Your task to perform on an android device: remove spam from my inbox in the gmail app Image 0: 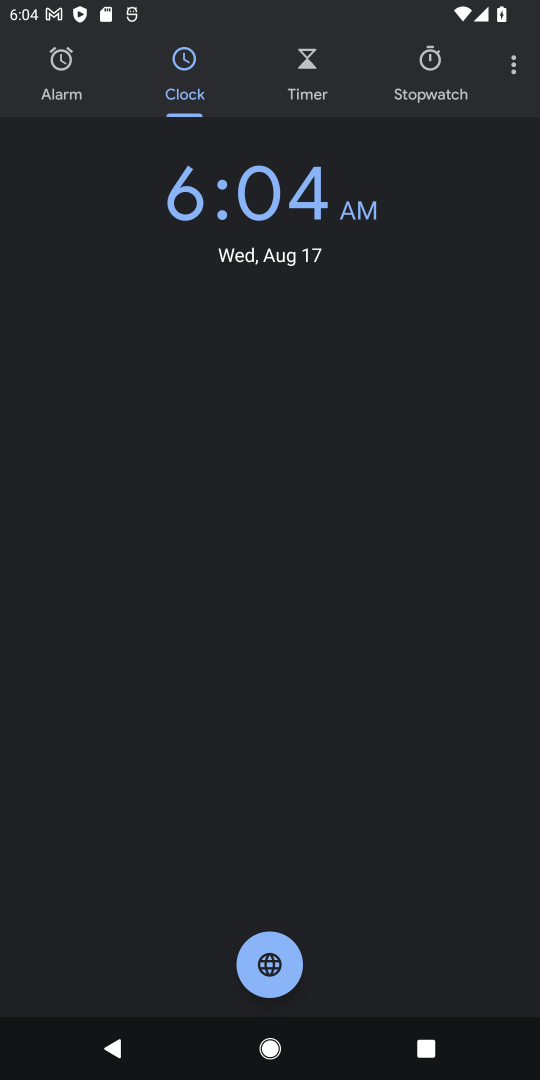
Step 0: press back button
Your task to perform on an android device: remove spam from my inbox in the gmail app Image 1: 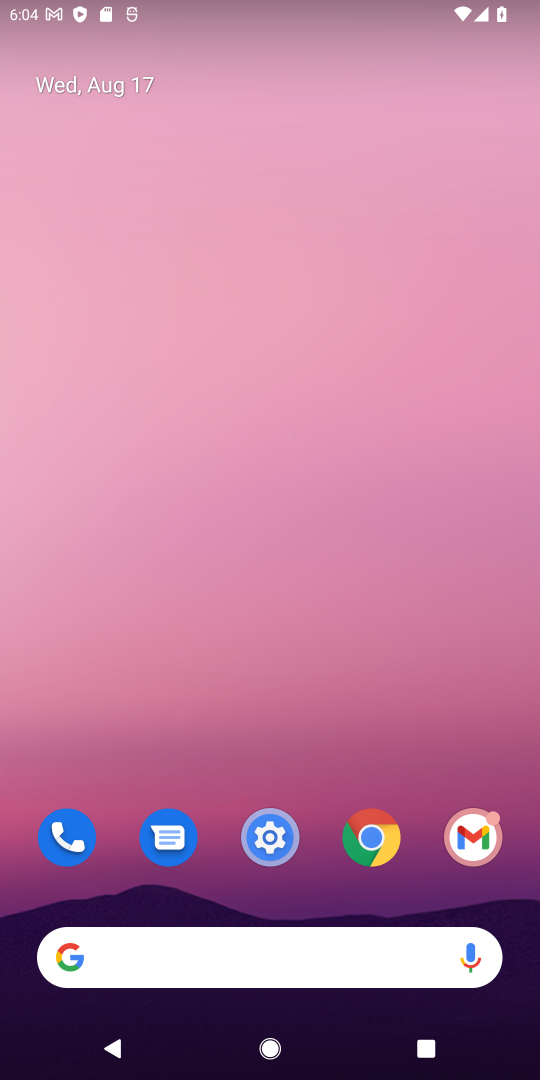
Step 1: click (483, 835)
Your task to perform on an android device: remove spam from my inbox in the gmail app Image 2: 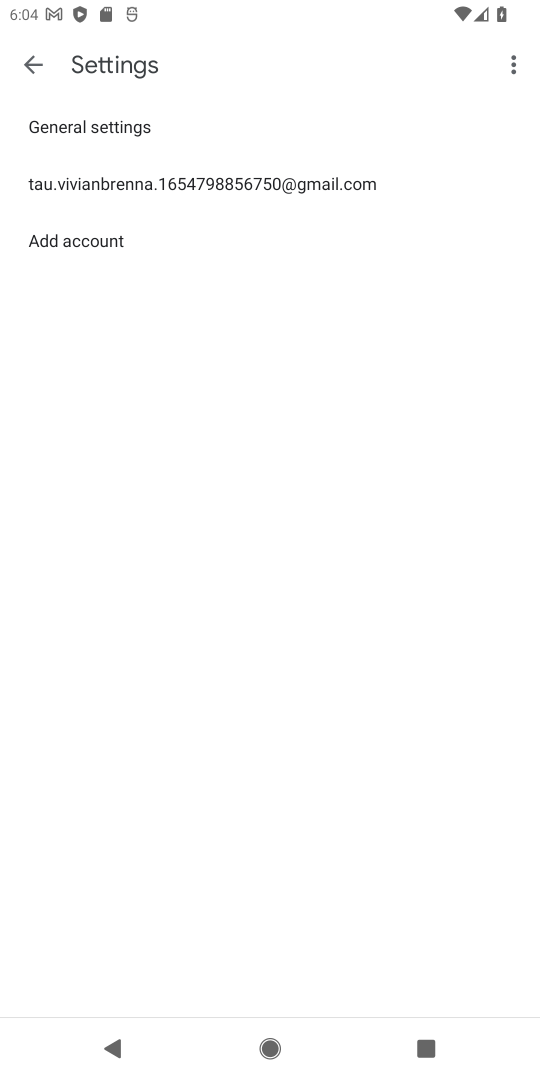
Step 2: task complete